Your task to perform on an android device: turn on improve location accuracy Image 0: 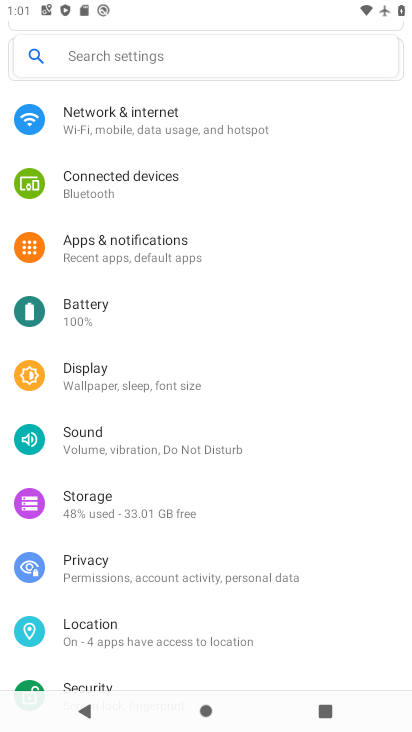
Step 0: press home button
Your task to perform on an android device: turn on improve location accuracy Image 1: 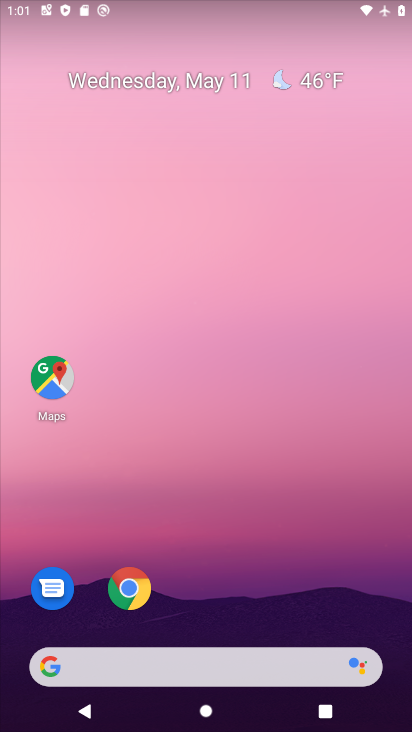
Step 1: drag from (304, 412) to (334, 129)
Your task to perform on an android device: turn on improve location accuracy Image 2: 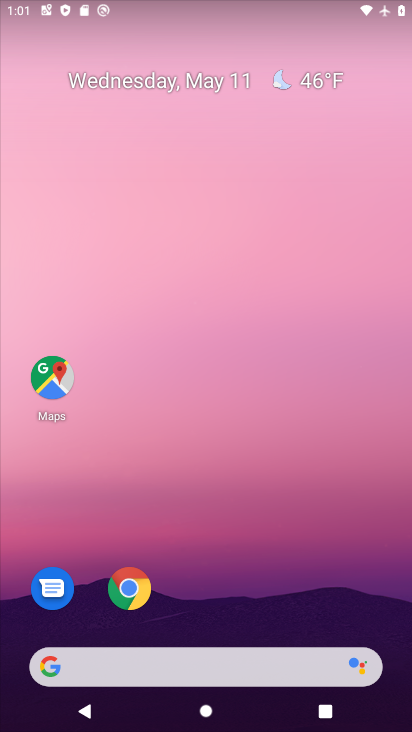
Step 2: drag from (238, 553) to (275, 87)
Your task to perform on an android device: turn on improve location accuracy Image 3: 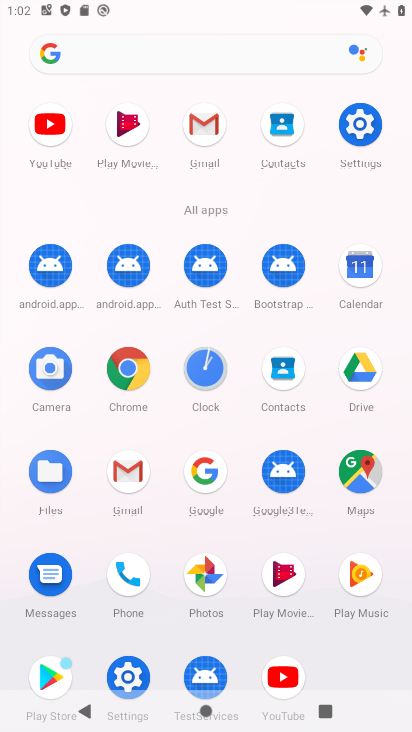
Step 3: click (373, 136)
Your task to perform on an android device: turn on improve location accuracy Image 4: 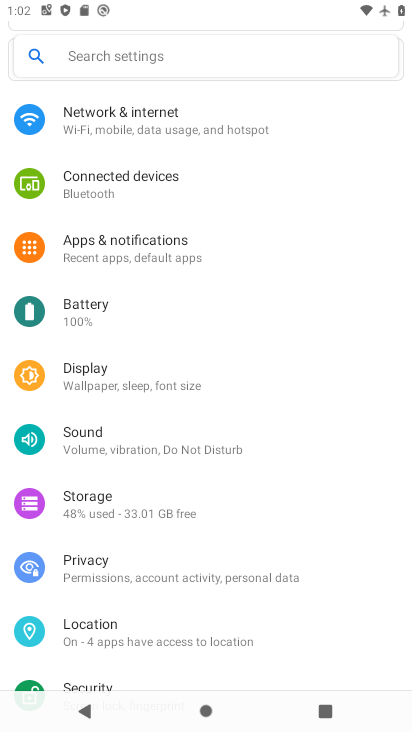
Step 4: click (116, 645)
Your task to perform on an android device: turn on improve location accuracy Image 5: 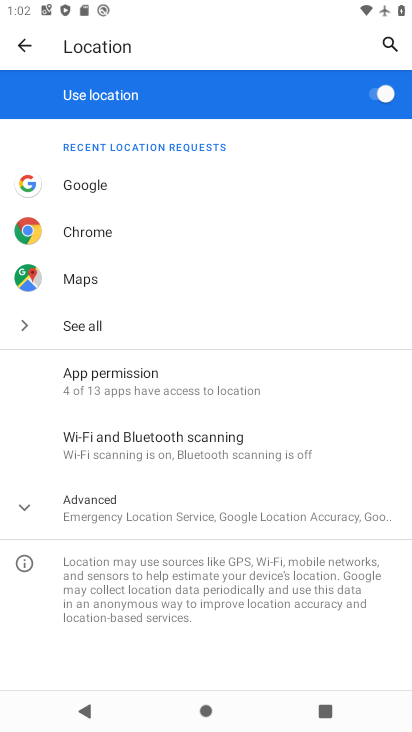
Step 5: click (29, 505)
Your task to perform on an android device: turn on improve location accuracy Image 6: 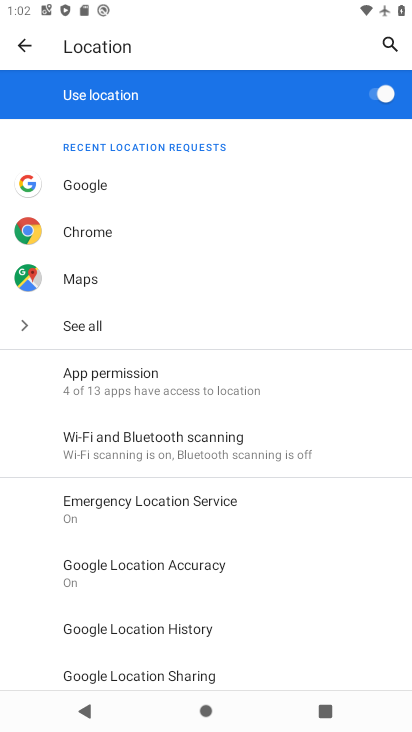
Step 6: click (134, 557)
Your task to perform on an android device: turn on improve location accuracy Image 7: 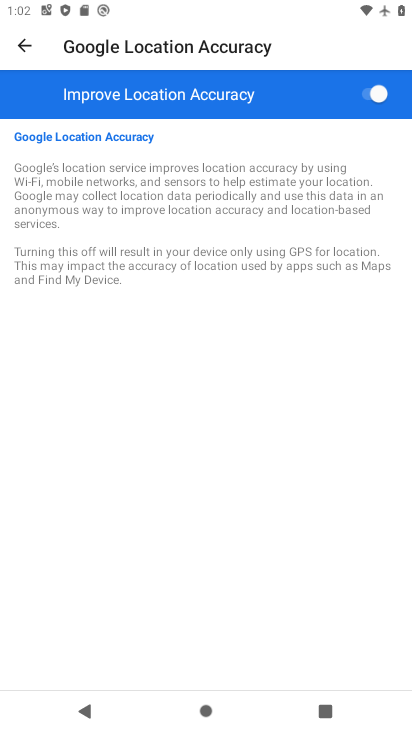
Step 7: task complete